Your task to perform on an android device: toggle sleep mode Image 0: 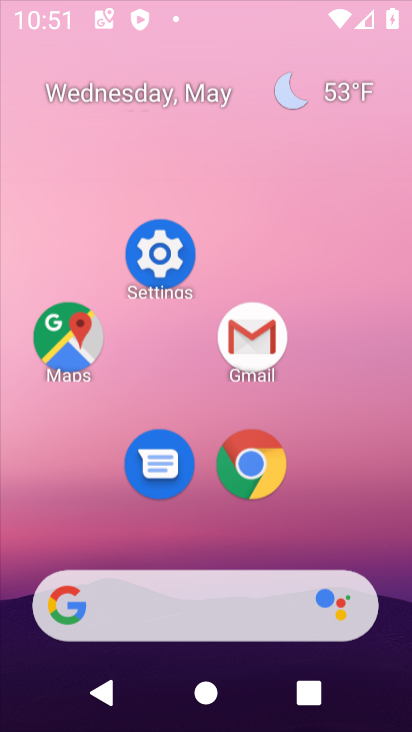
Step 0: click (318, 170)
Your task to perform on an android device: toggle sleep mode Image 1: 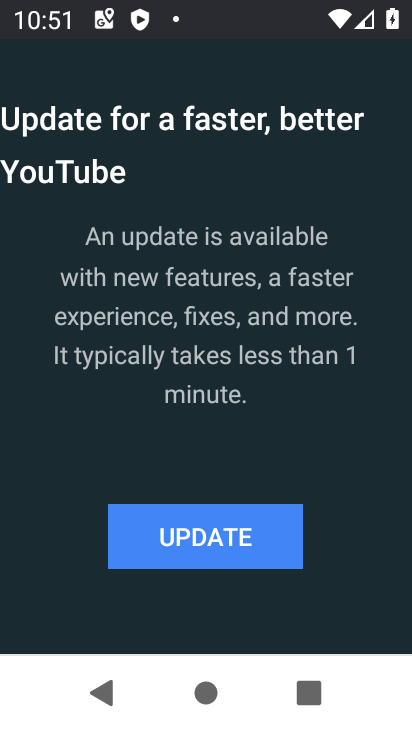
Step 1: click (318, 353)
Your task to perform on an android device: toggle sleep mode Image 2: 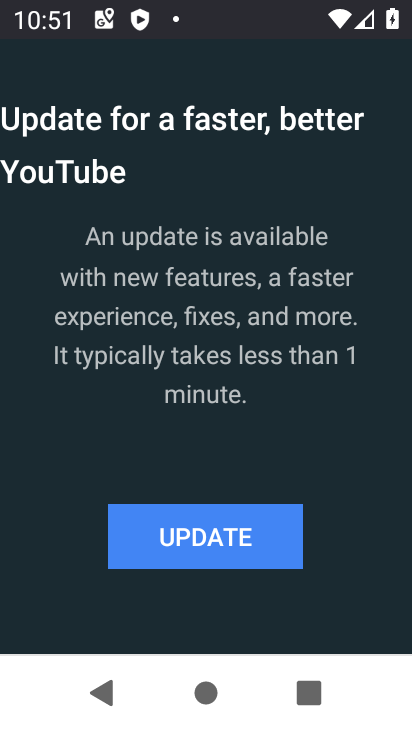
Step 2: click (170, 531)
Your task to perform on an android device: toggle sleep mode Image 3: 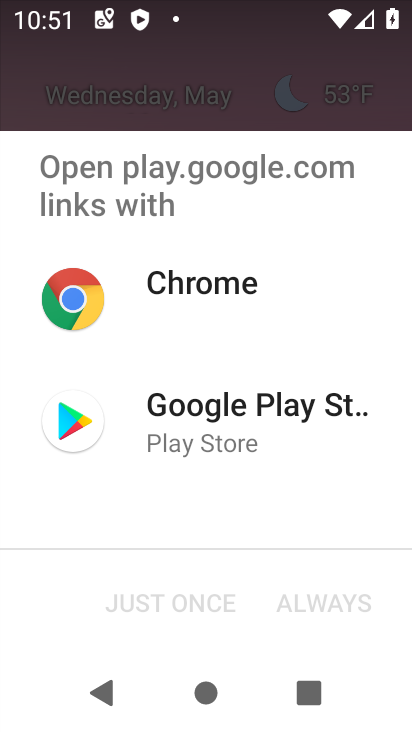
Step 3: press home button
Your task to perform on an android device: toggle sleep mode Image 4: 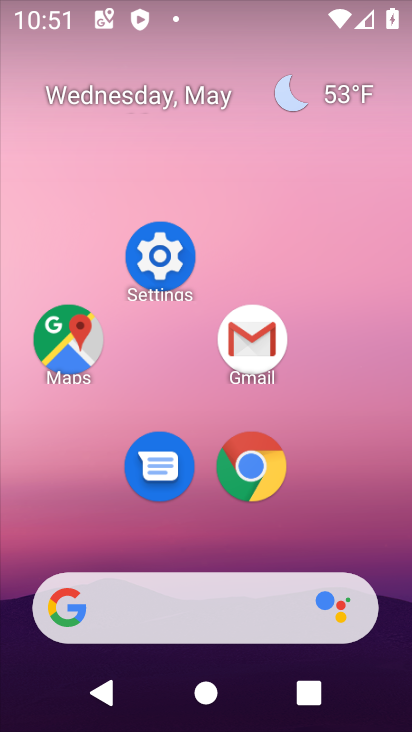
Step 4: drag from (203, 572) to (273, 244)
Your task to perform on an android device: toggle sleep mode Image 5: 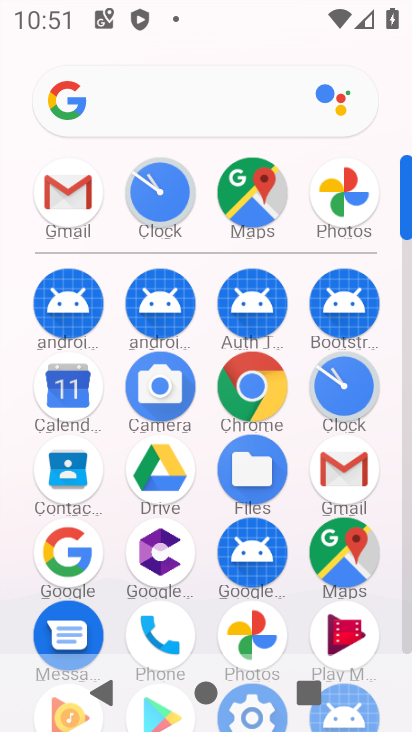
Step 5: drag from (281, 619) to (365, 298)
Your task to perform on an android device: toggle sleep mode Image 6: 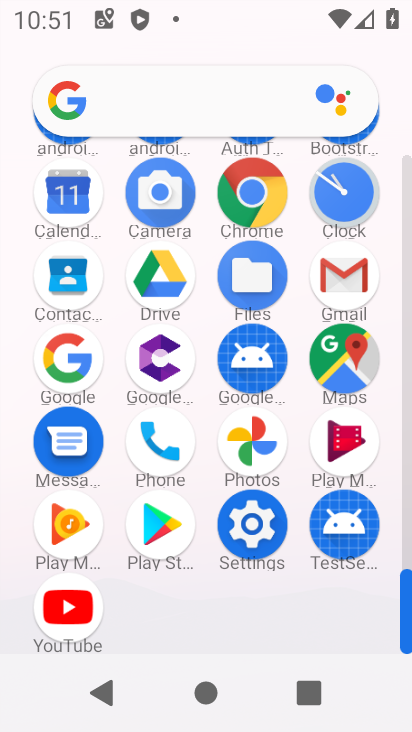
Step 6: click (256, 534)
Your task to perform on an android device: toggle sleep mode Image 7: 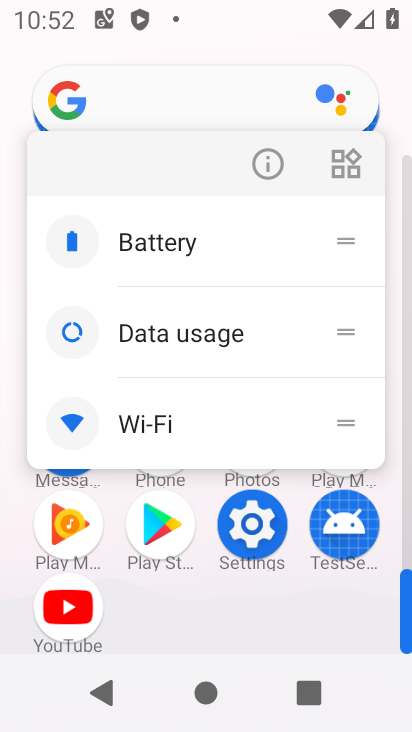
Step 7: click (265, 150)
Your task to perform on an android device: toggle sleep mode Image 8: 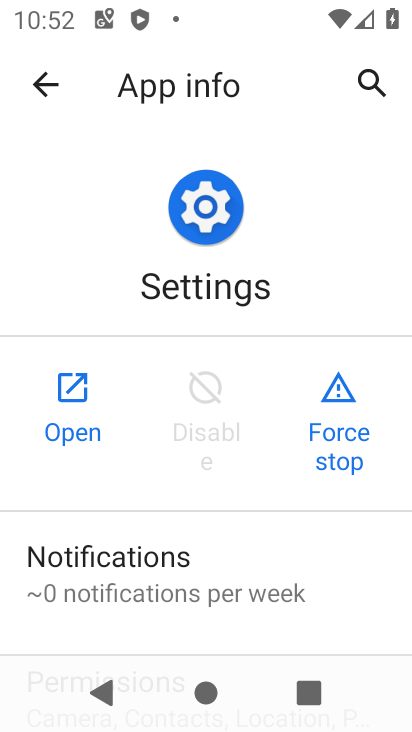
Step 8: click (83, 394)
Your task to perform on an android device: toggle sleep mode Image 9: 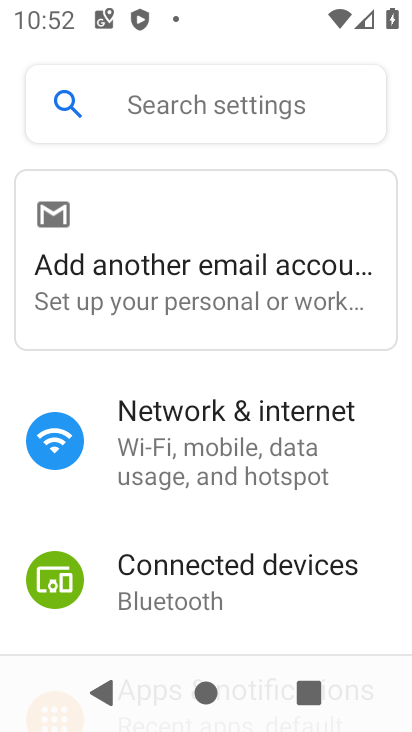
Step 9: drag from (229, 590) to (283, 102)
Your task to perform on an android device: toggle sleep mode Image 10: 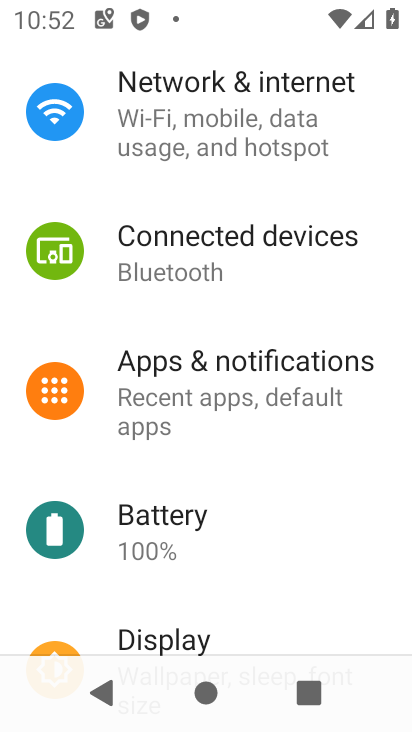
Step 10: click (174, 639)
Your task to perform on an android device: toggle sleep mode Image 11: 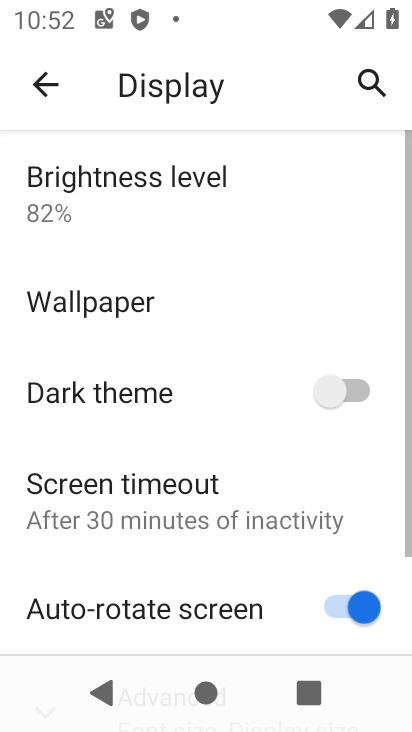
Step 11: click (154, 511)
Your task to perform on an android device: toggle sleep mode Image 12: 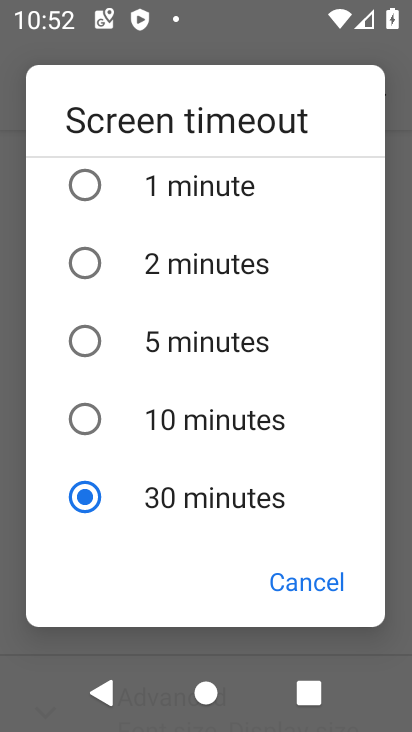
Step 12: task complete